Your task to perform on an android device: find snoozed emails in the gmail app Image 0: 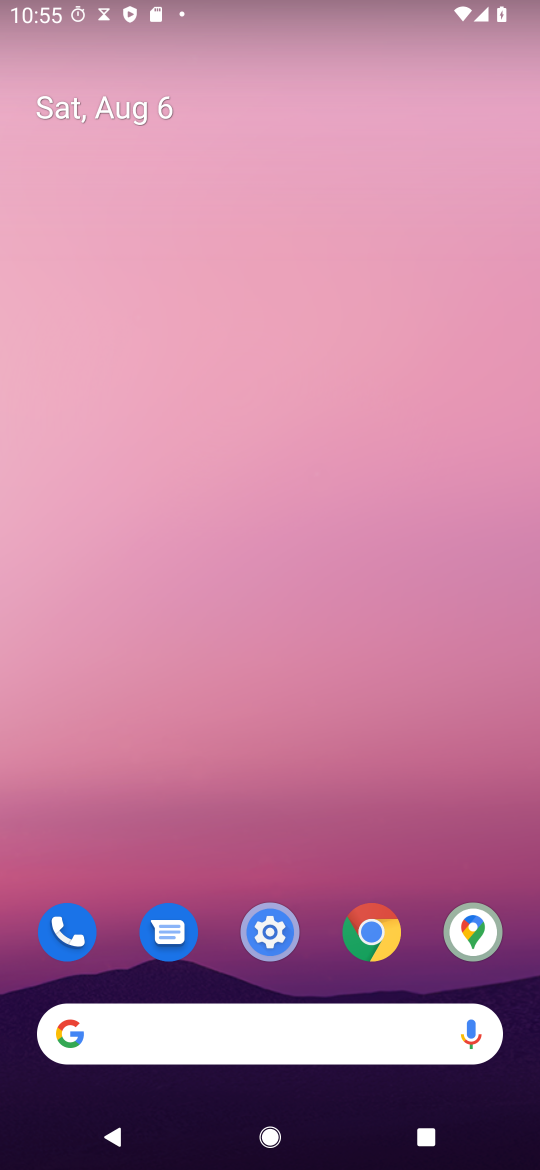
Step 0: drag from (246, 1050) to (301, 373)
Your task to perform on an android device: find snoozed emails in the gmail app Image 1: 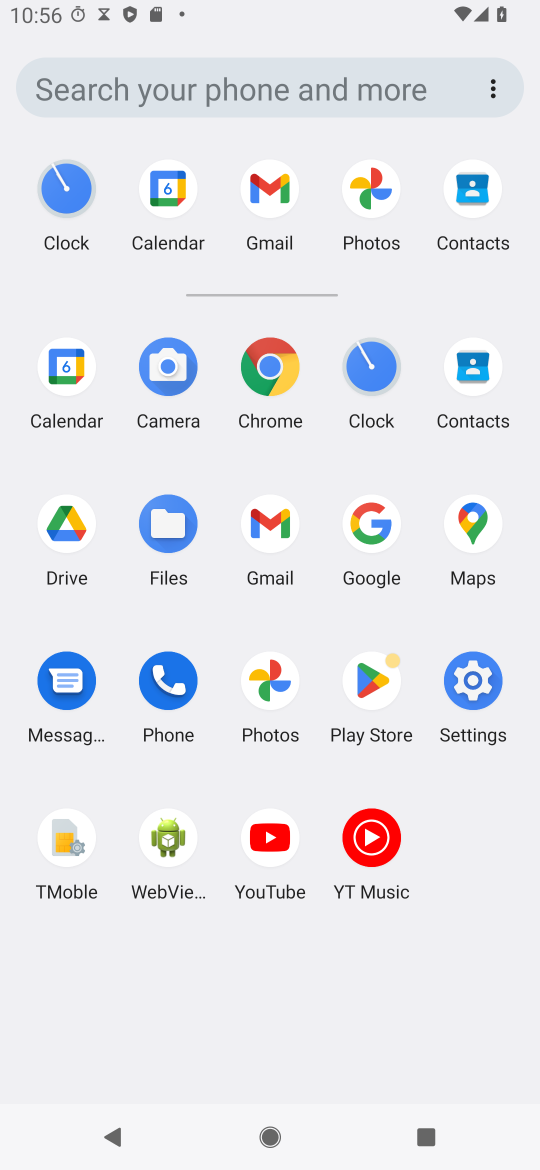
Step 1: click (267, 528)
Your task to perform on an android device: find snoozed emails in the gmail app Image 2: 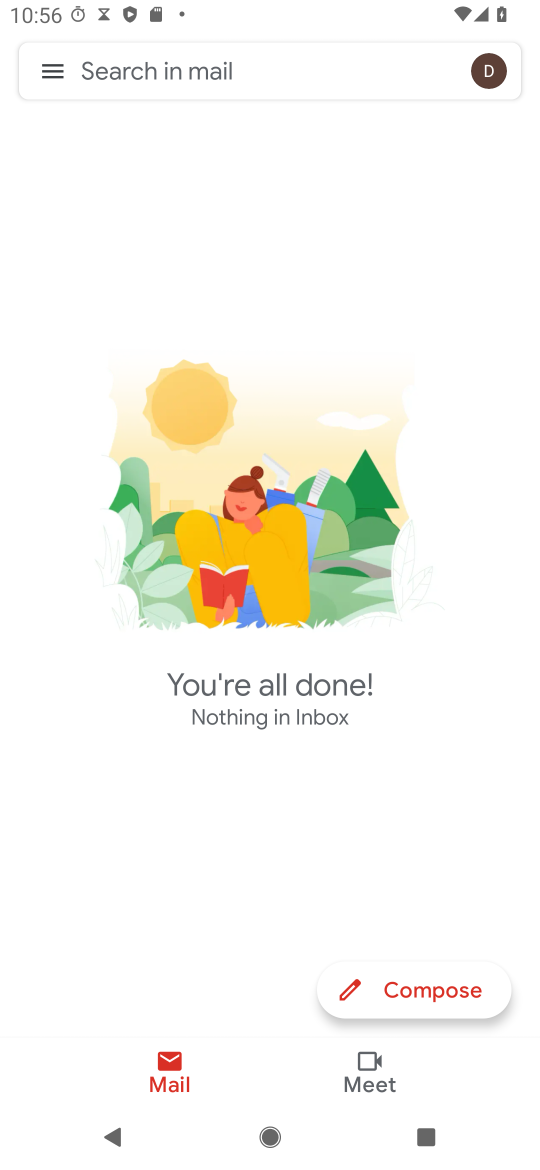
Step 2: click (51, 77)
Your task to perform on an android device: find snoozed emails in the gmail app Image 3: 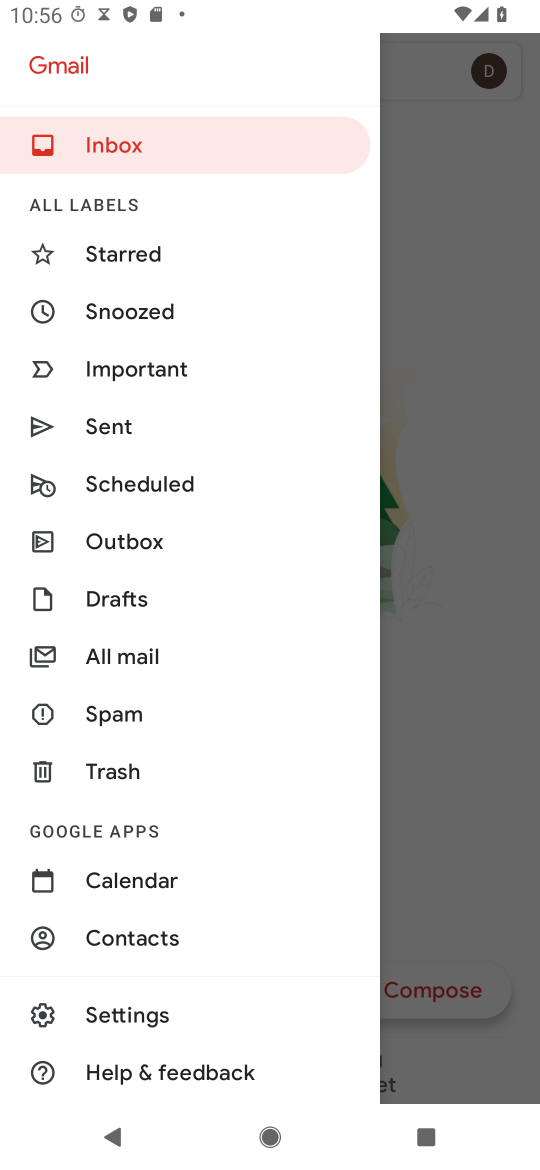
Step 3: click (111, 322)
Your task to perform on an android device: find snoozed emails in the gmail app Image 4: 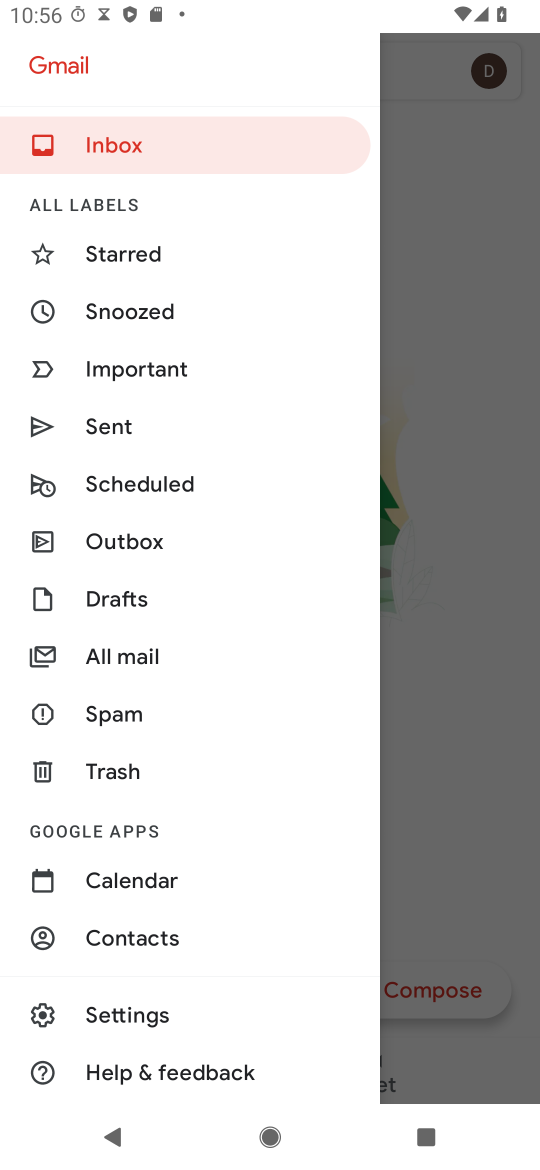
Step 4: click (111, 322)
Your task to perform on an android device: find snoozed emails in the gmail app Image 5: 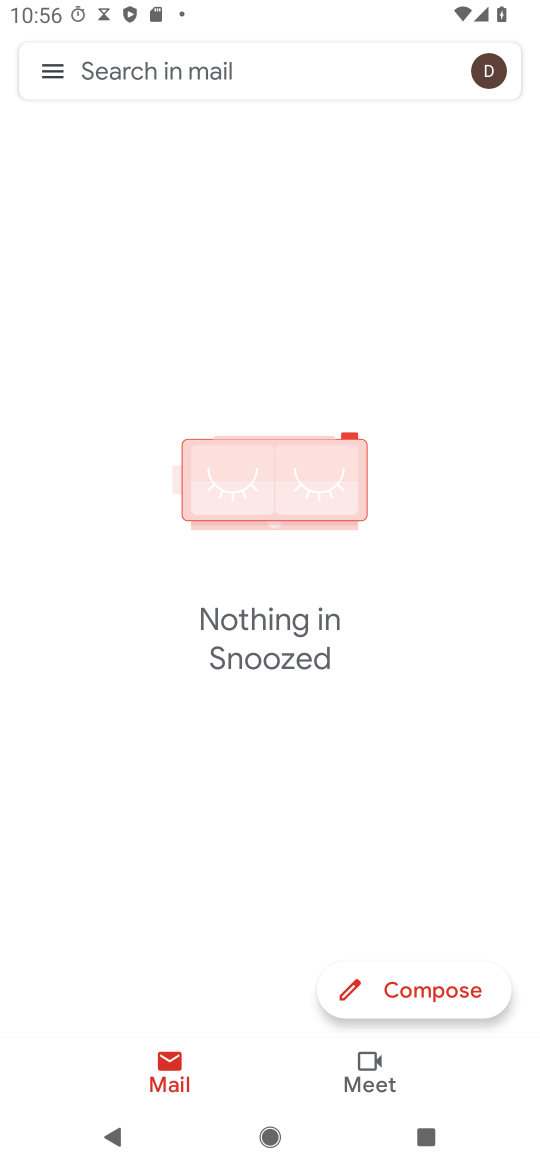
Step 5: task complete